Your task to perform on an android device: Search for seafood restaurants on Google Maps Image 0: 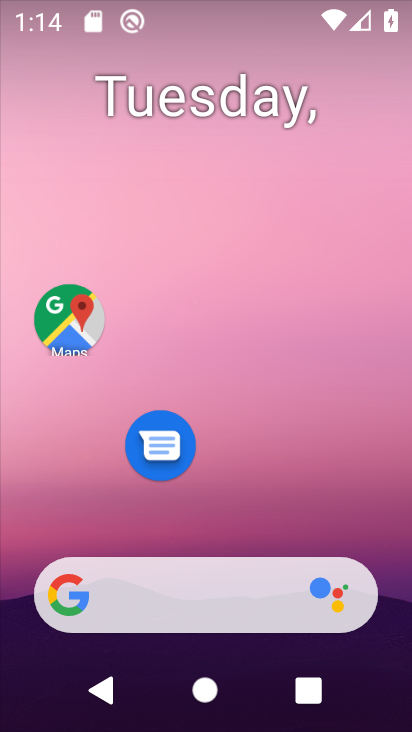
Step 0: click (61, 337)
Your task to perform on an android device: Search for seafood restaurants on Google Maps Image 1: 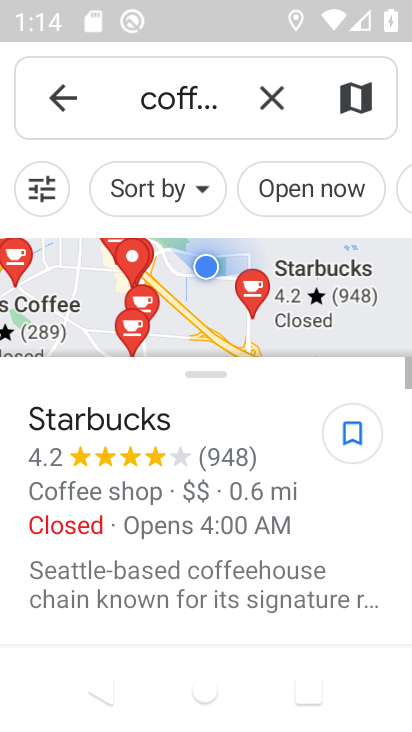
Step 1: click (268, 102)
Your task to perform on an android device: Search for seafood restaurants on Google Maps Image 2: 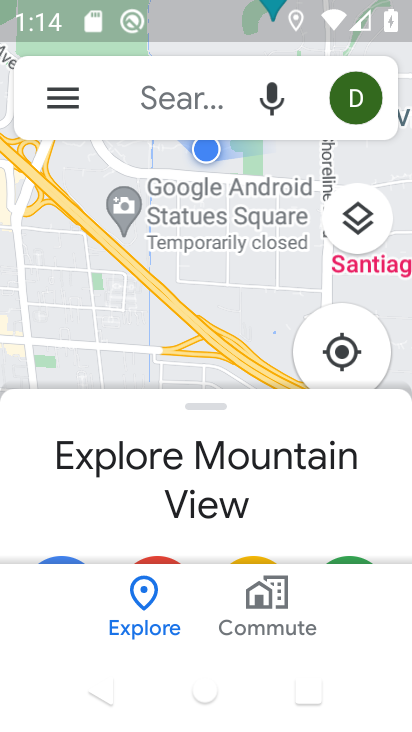
Step 2: click (196, 103)
Your task to perform on an android device: Search for seafood restaurants on Google Maps Image 3: 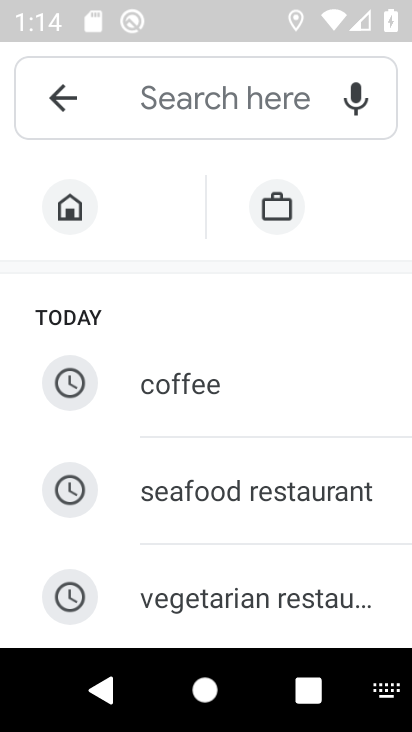
Step 3: click (252, 488)
Your task to perform on an android device: Search for seafood restaurants on Google Maps Image 4: 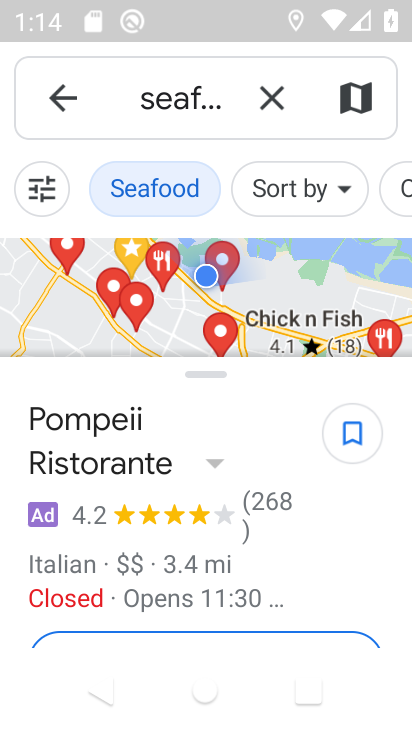
Step 4: task complete